Your task to perform on an android device: Go to location settings Image 0: 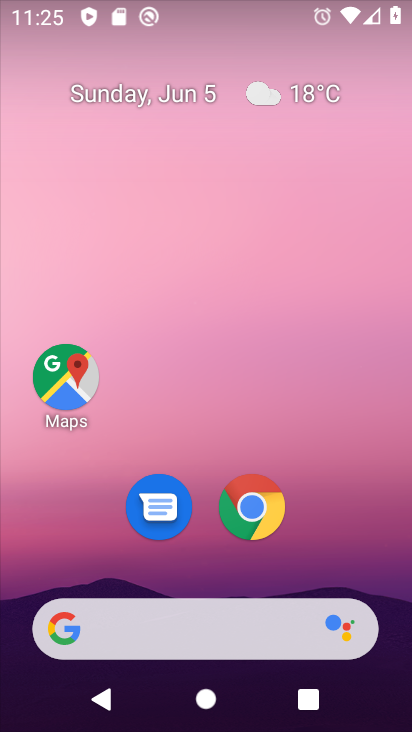
Step 0: drag from (246, 722) to (245, 32)
Your task to perform on an android device: Go to location settings Image 1: 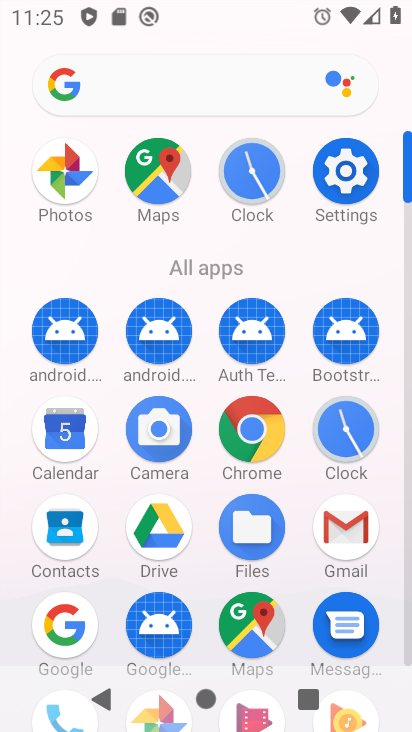
Step 1: click (342, 160)
Your task to perform on an android device: Go to location settings Image 2: 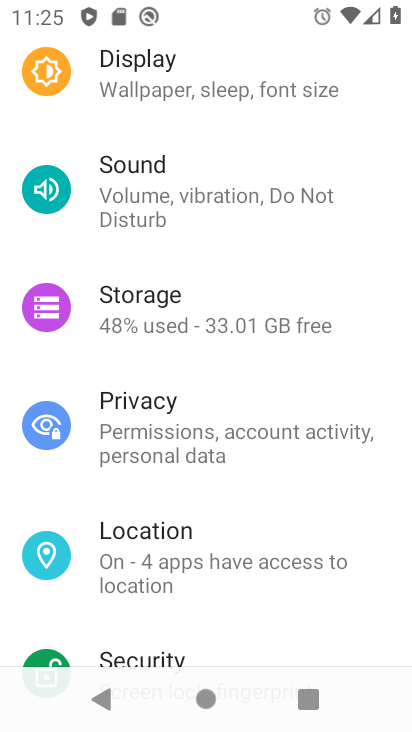
Step 2: click (140, 542)
Your task to perform on an android device: Go to location settings Image 3: 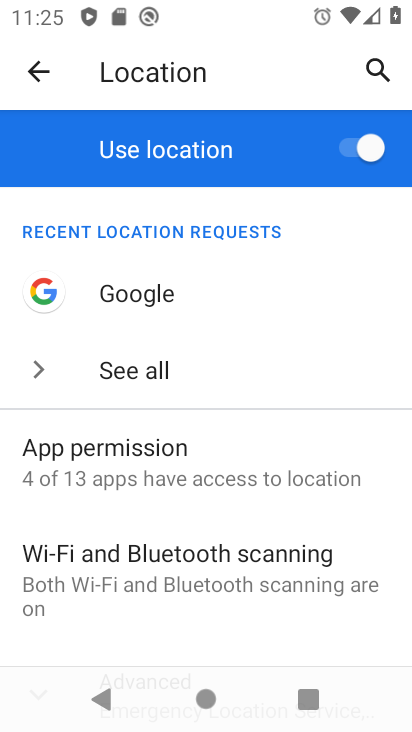
Step 3: task complete